Your task to perform on an android device: turn on showing notifications on the lock screen Image 0: 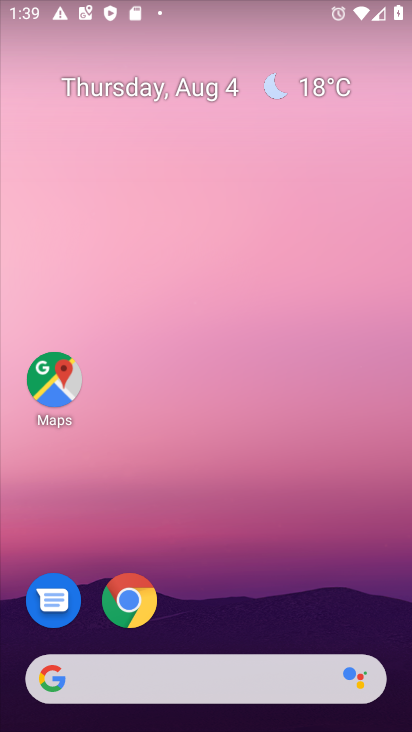
Step 0: press home button
Your task to perform on an android device: turn on showing notifications on the lock screen Image 1: 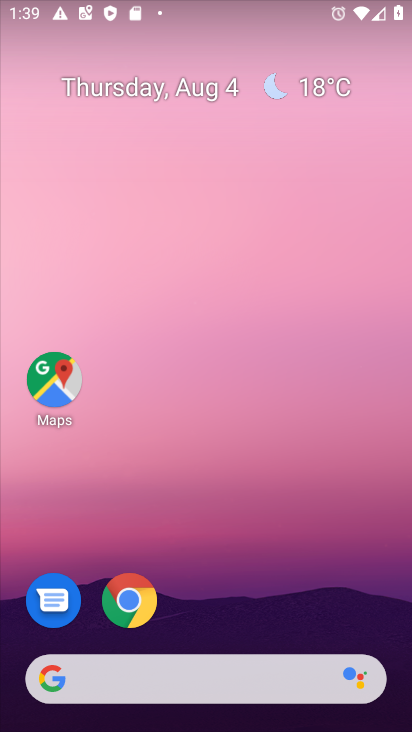
Step 1: drag from (122, 680) to (269, 162)
Your task to perform on an android device: turn on showing notifications on the lock screen Image 2: 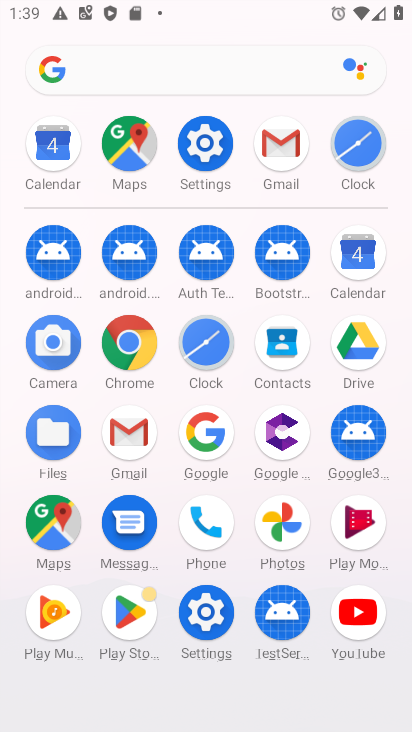
Step 2: click (201, 158)
Your task to perform on an android device: turn on showing notifications on the lock screen Image 3: 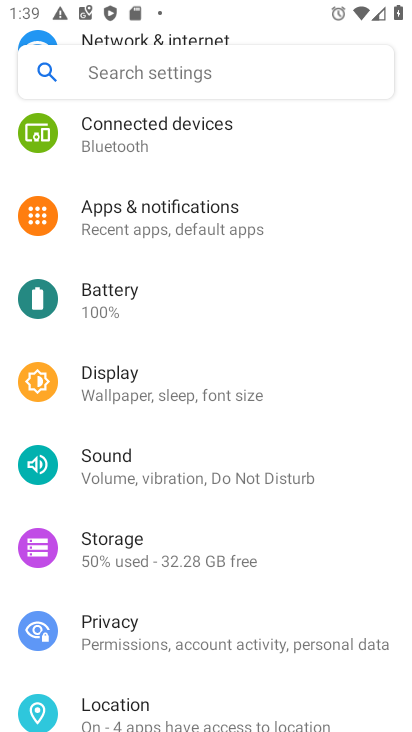
Step 3: drag from (341, 145) to (316, 651)
Your task to perform on an android device: turn on showing notifications on the lock screen Image 4: 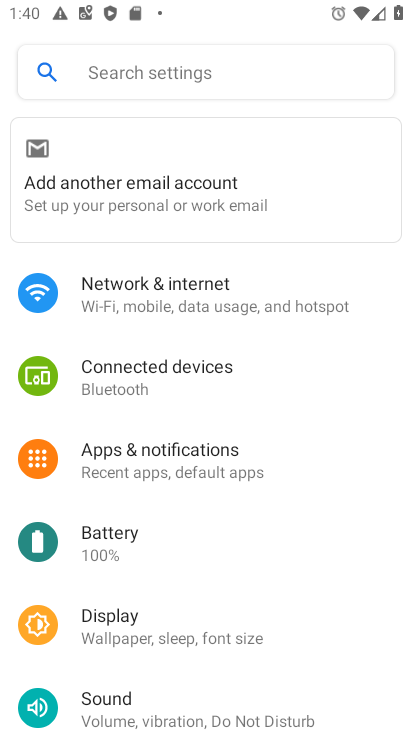
Step 4: click (199, 454)
Your task to perform on an android device: turn on showing notifications on the lock screen Image 5: 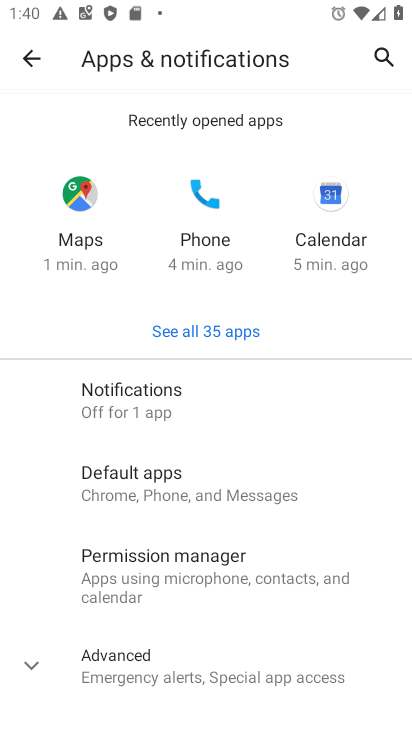
Step 5: click (152, 402)
Your task to perform on an android device: turn on showing notifications on the lock screen Image 6: 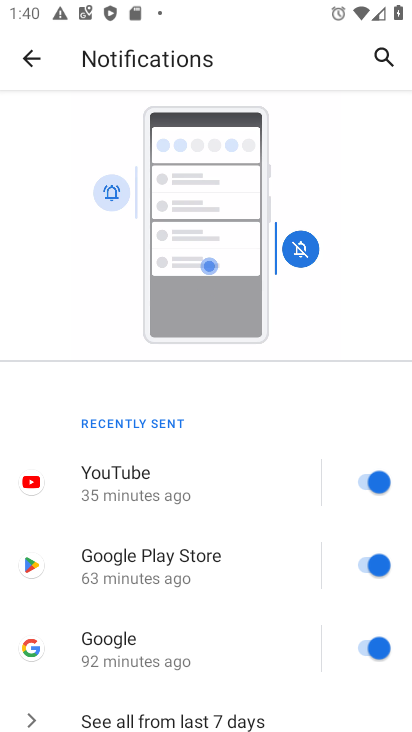
Step 6: drag from (253, 657) to (407, 178)
Your task to perform on an android device: turn on showing notifications on the lock screen Image 7: 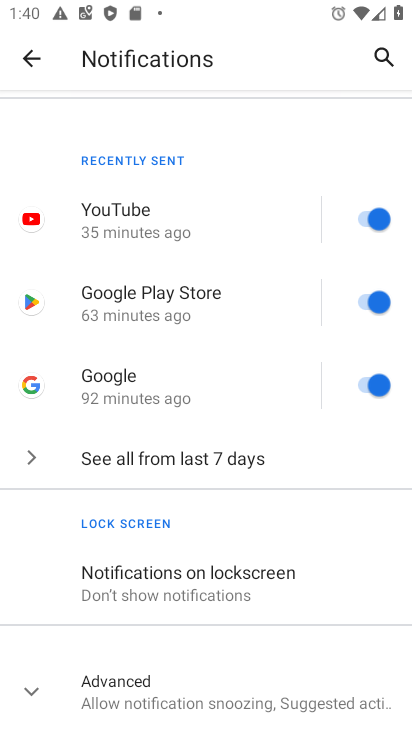
Step 7: click (203, 578)
Your task to perform on an android device: turn on showing notifications on the lock screen Image 8: 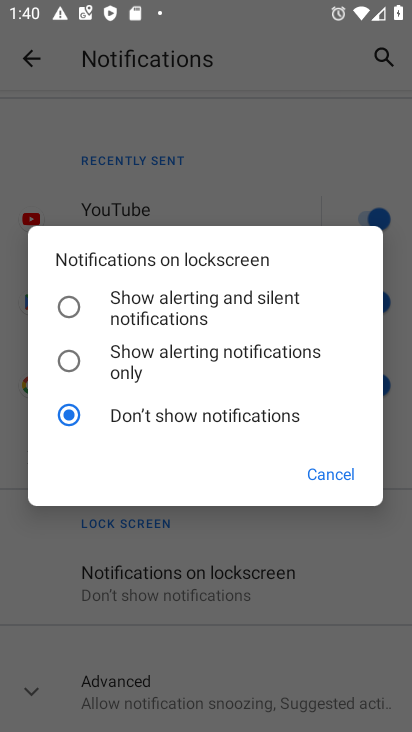
Step 8: click (71, 303)
Your task to perform on an android device: turn on showing notifications on the lock screen Image 9: 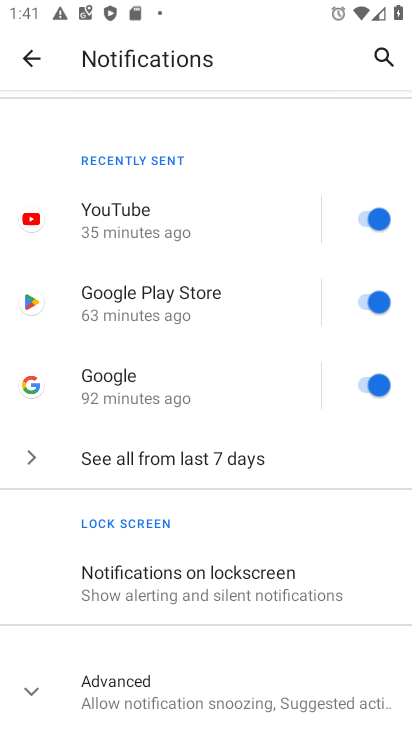
Step 9: task complete